Your task to perform on an android device: refresh tabs in the chrome app Image 0: 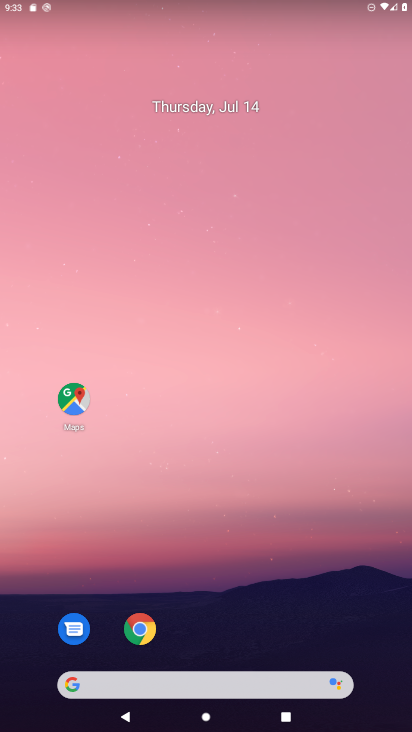
Step 0: drag from (264, 595) to (256, 98)
Your task to perform on an android device: refresh tabs in the chrome app Image 1: 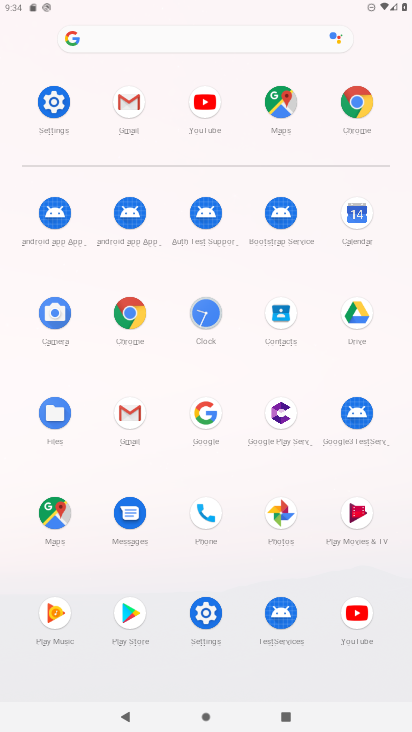
Step 1: click (132, 312)
Your task to perform on an android device: refresh tabs in the chrome app Image 2: 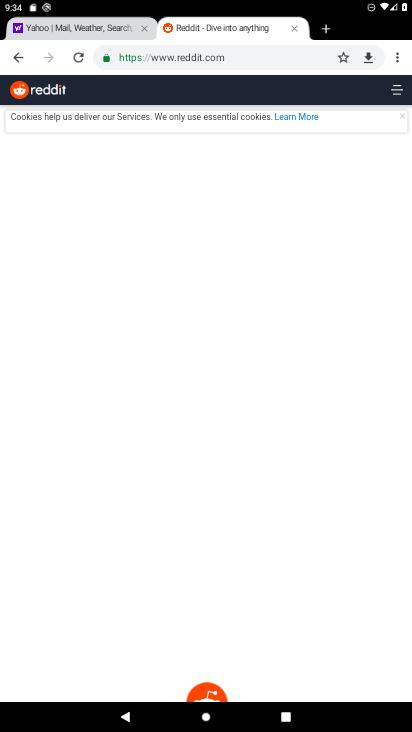
Step 2: click (398, 58)
Your task to perform on an android device: refresh tabs in the chrome app Image 3: 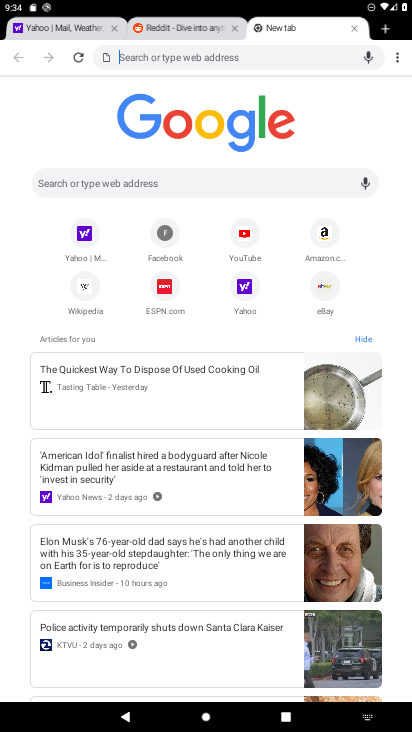
Step 3: task complete